Your task to perform on an android device: move a message to another label in the gmail app Image 0: 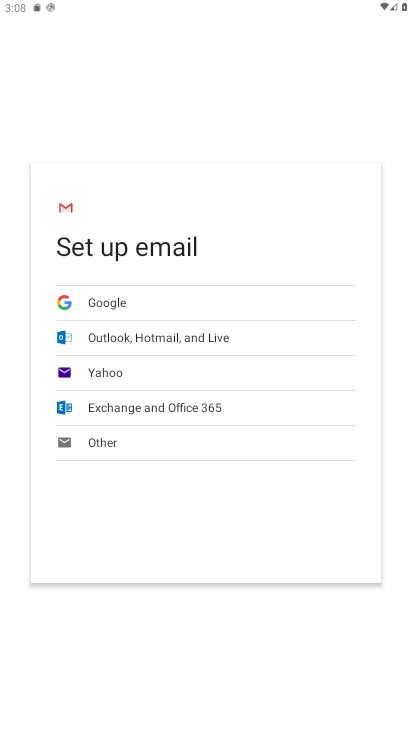
Step 0: press home button
Your task to perform on an android device: move a message to another label in the gmail app Image 1: 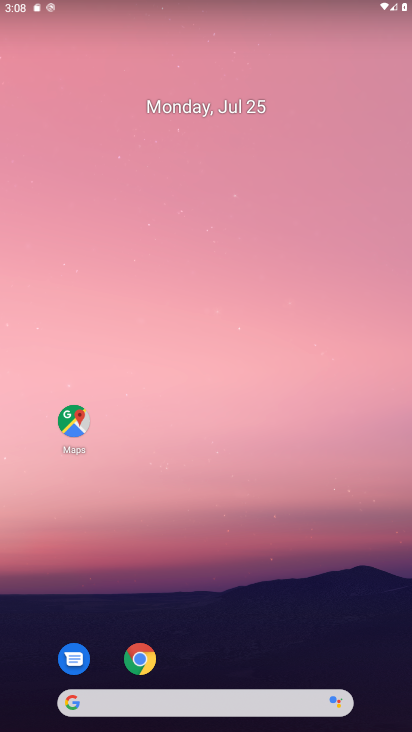
Step 1: drag from (185, 647) to (204, 270)
Your task to perform on an android device: move a message to another label in the gmail app Image 2: 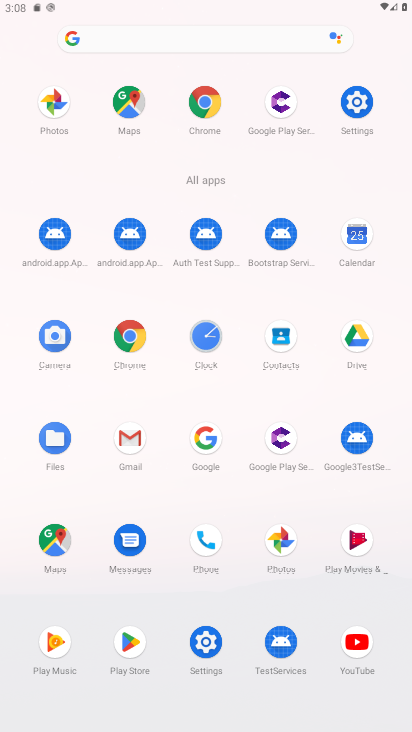
Step 2: click (139, 443)
Your task to perform on an android device: move a message to another label in the gmail app Image 3: 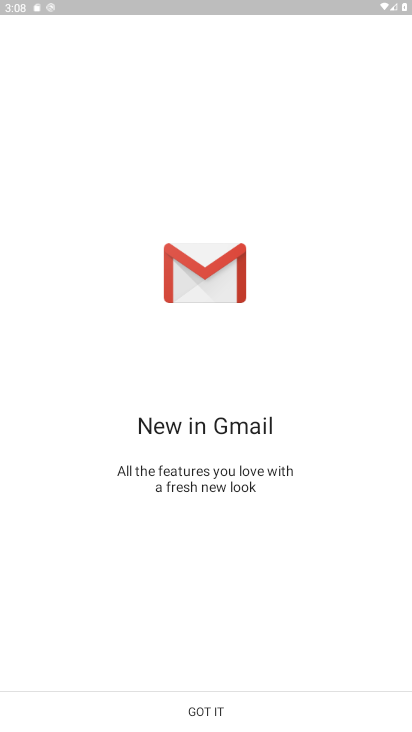
Step 3: click (199, 707)
Your task to perform on an android device: move a message to another label in the gmail app Image 4: 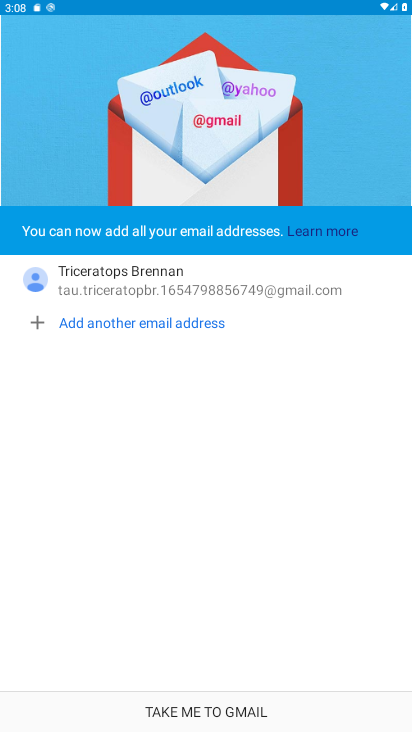
Step 4: click (222, 710)
Your task to perform on an android device: move a message to another label in the gmail app Image 5: 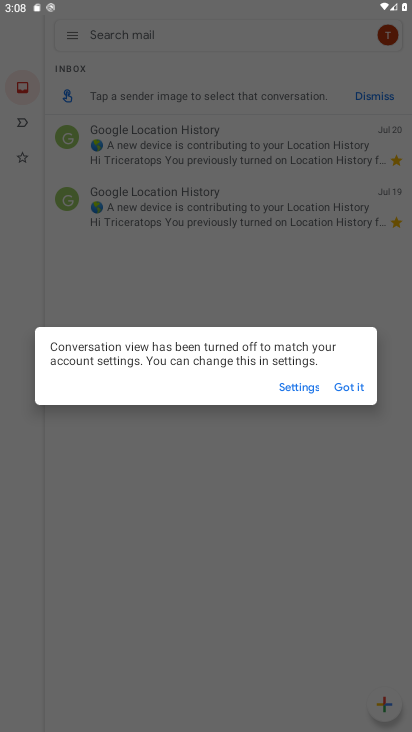
Step 5: click (345, 384)
Your task to perform on an android device: move a message to another label in the gmail app Image 6: 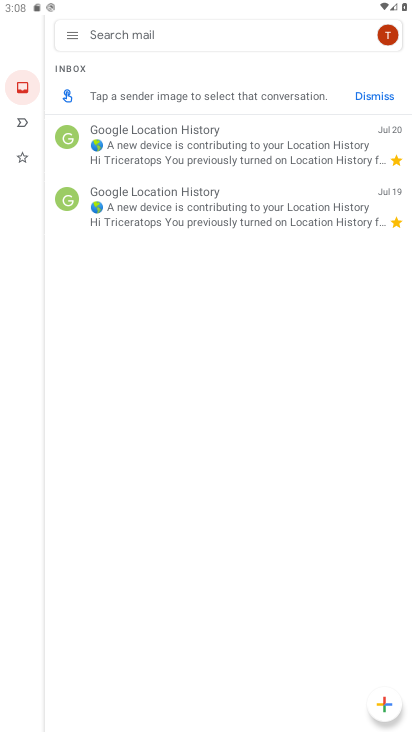
Step 6: click (225, 144)
Your task to perform on an android device: move a message to another label in the gmail app Image 7: 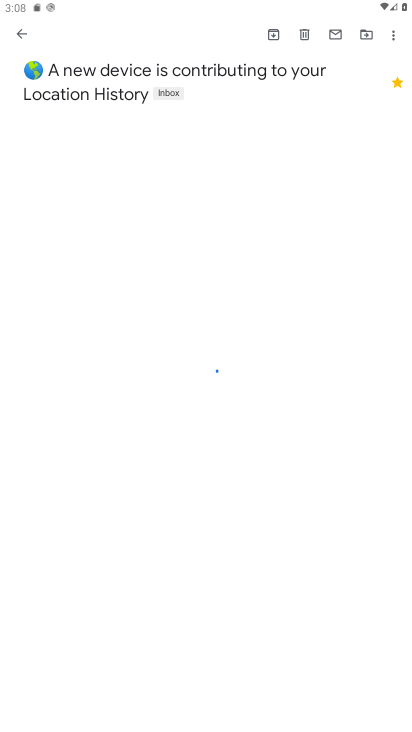
Step 7: click (173, 88)
Your task to perform on an android device: move a message to another label in the gmail app Image 8: 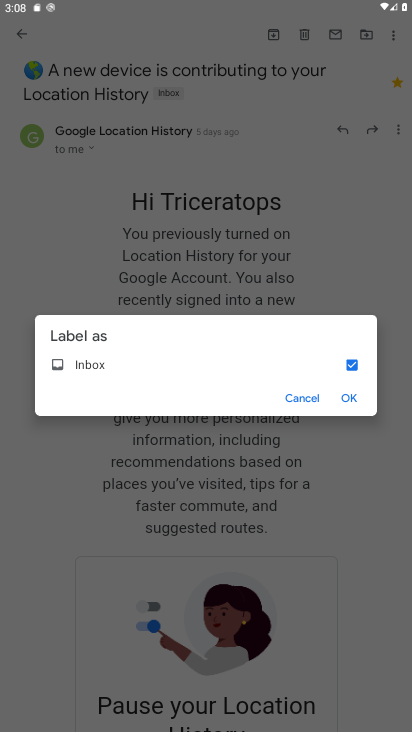
Step 8: click (348, 363)
Your task to perform on an android device: move a message to another label in the gmail app Image 9: 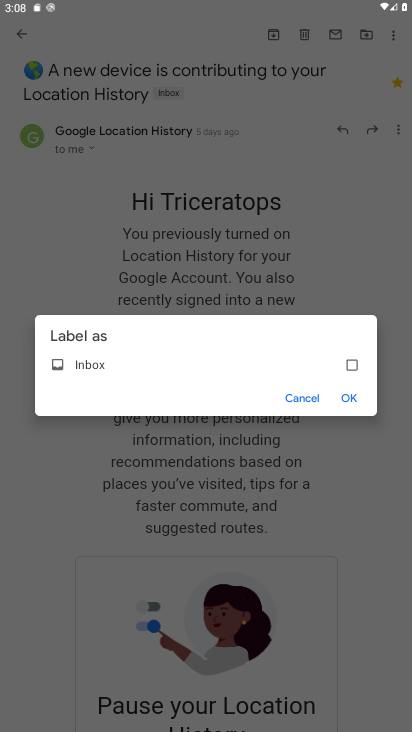
Step 9: click (350, 396)
Your task to perform on an android device: move a message to another label in the gmail app Image 10: 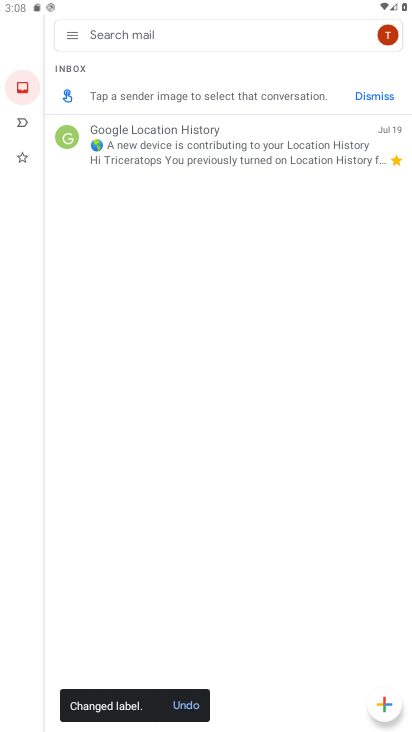
Step 10: task complete